Your task to perform on an android device: clear history in the chrome app Image 0: 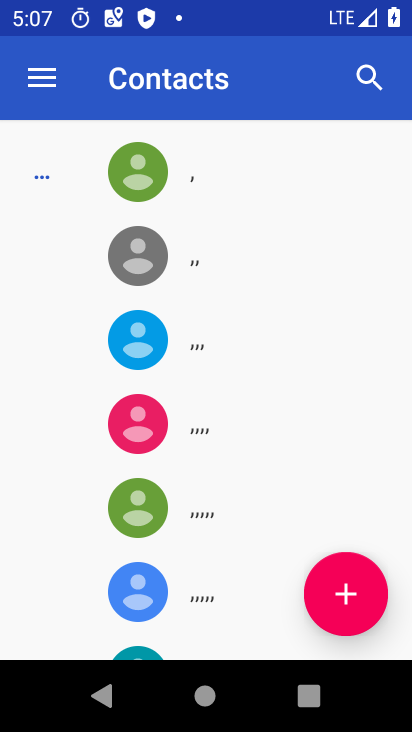
Step 0: press home button
Your task to perform on an android device: clear history in the chrome app Image 1: 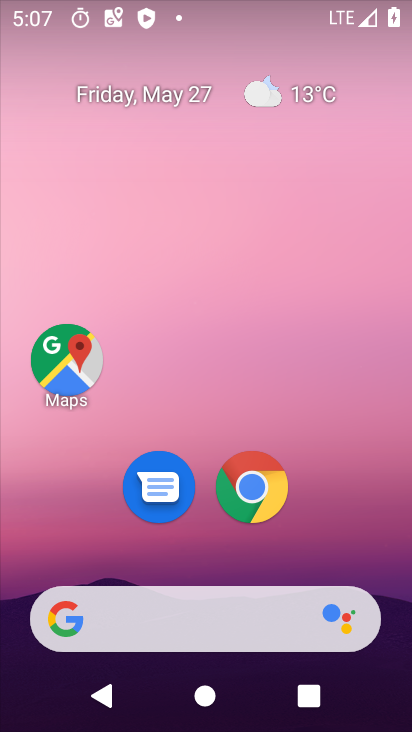
Step 1: drag from (304, 419) to (266, 84)
Your task to perform on an android device: clear history in the chrome app Image 2: 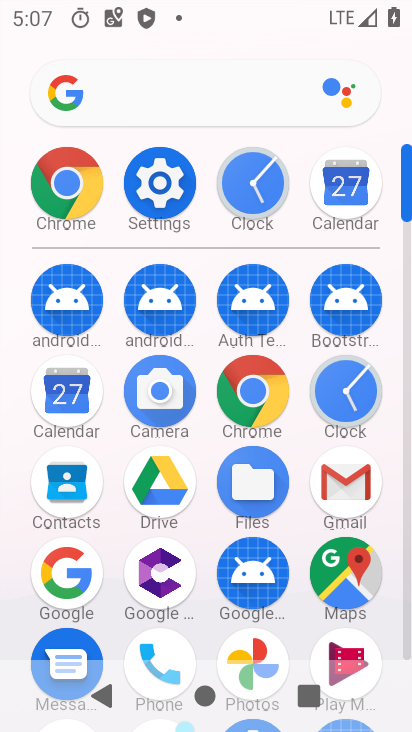
Step 2: click (247, 394)
Your task to perform on an android device: clear history in the chrome app Image 3: 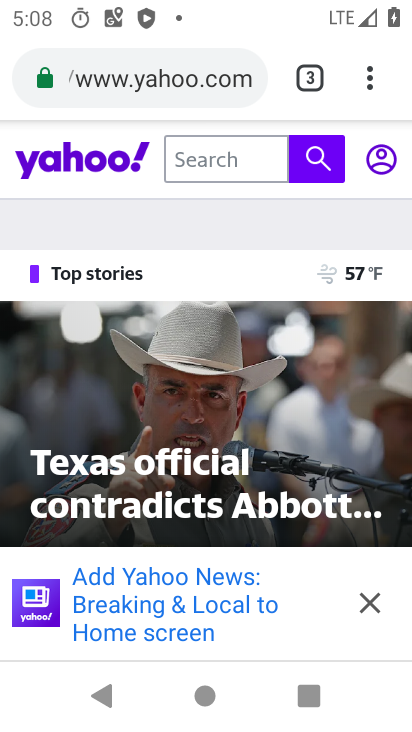
Step 3: drag from (377, 68) to (185, 429)
Your task to perform on an android device: clear history in the chrome app Image 4: 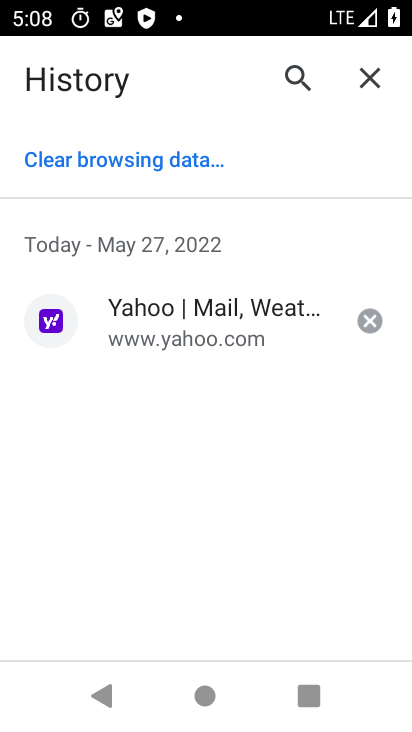
Step 4: click (180, 167)
Your task to perform on an android device: clear history in the chrome app Image 5: 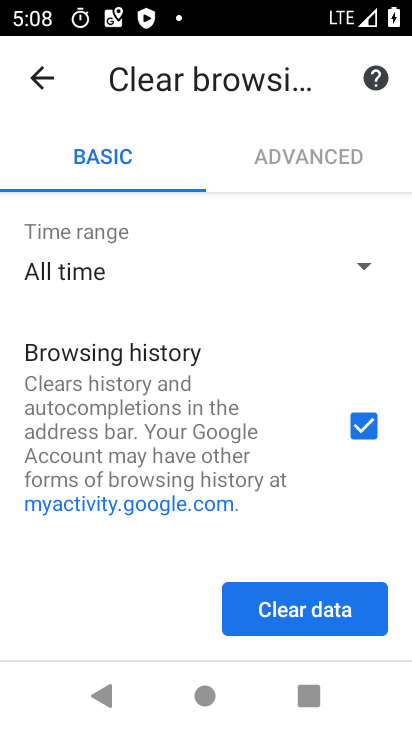
Step 5: click (289, 605)
Your task to perform on an android device: clear history in the chrome app Image 6: 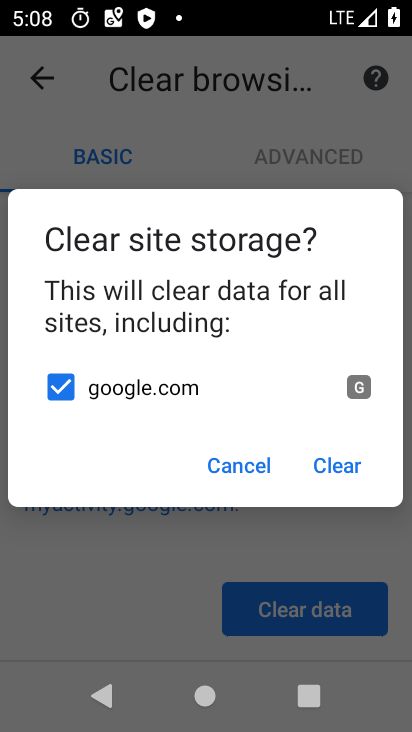
Step 6: click (343, 466)
Your task to perform on an android device: clear history in the chrome app Image 7: 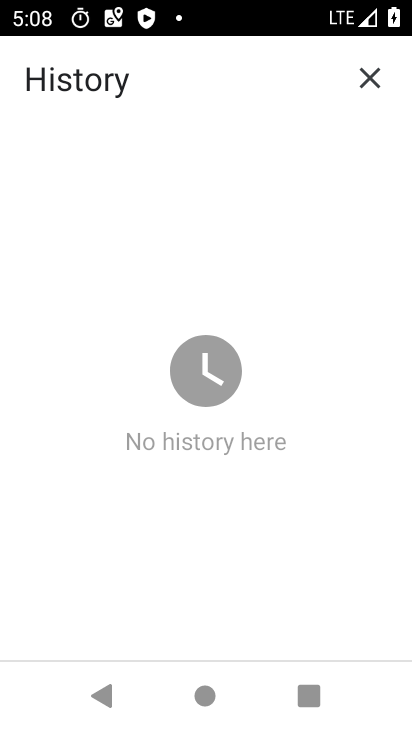
Step 7: task complete